Your task to perform on an android device: Open the phone app and click the voicemail tab. Image 0: 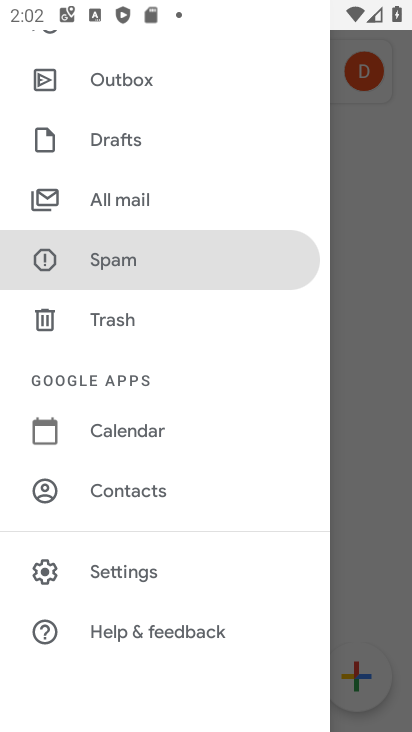
Step 0: drag from (168, 604) to (246, 159)
Your task to perform on an android device: Open the phone app and click the voicemail tab. Image 1: 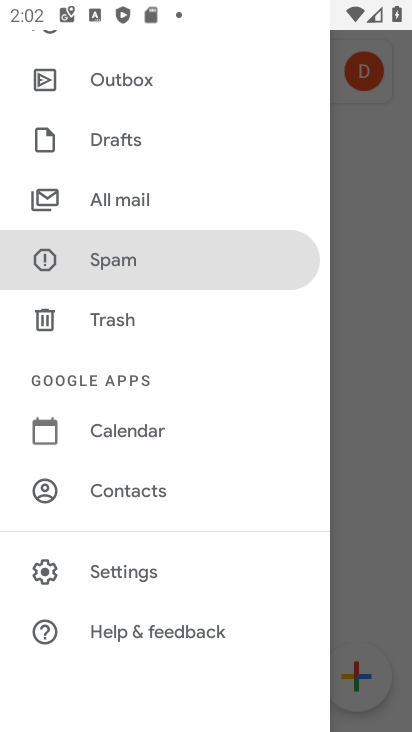
Step 1: drag from (175, 613) to (199, 206)
Your task to perform on an android device: Open the phone app and click the voicemail tab. Image 2: 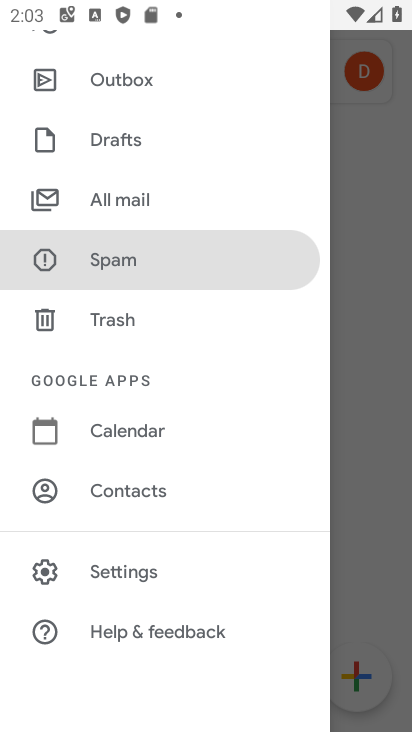
Step 2: press home button
Your task to perform on an android device: Open the phone app and click the voicemail tab. Image 3: 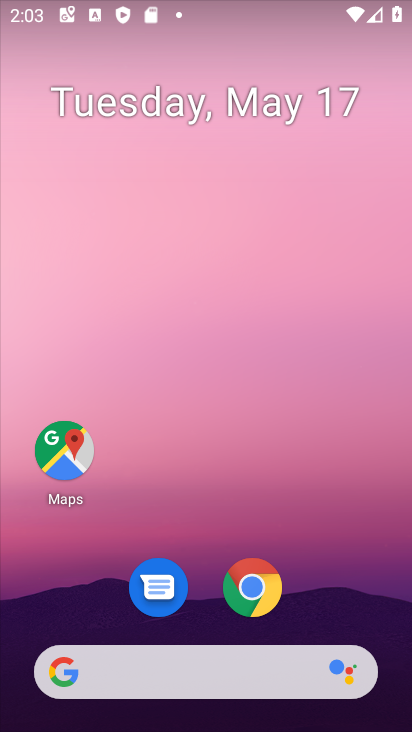
Step 3: drag from (217, 611) to (253, 66)
Your task to perform on an android device: Open the phone app and click the voicemail tab. Image 4: 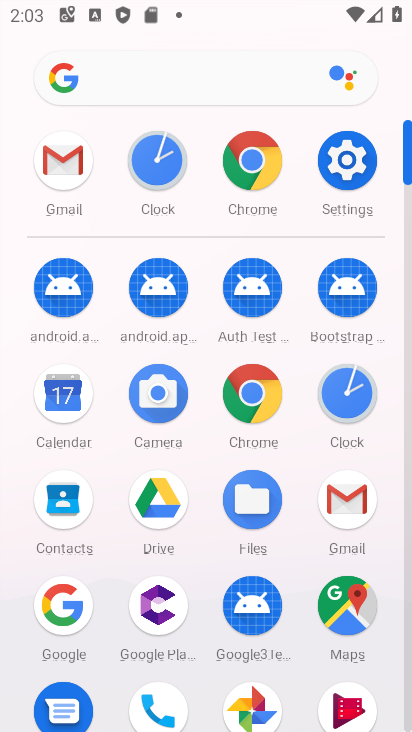
Step 4: click (167, 706)
Your task to perform on an android device: Open the phone app and click the voicemail tab. Image 5: 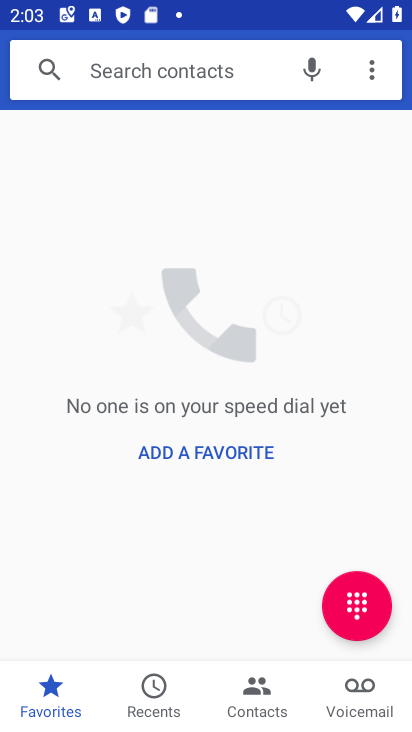
Step 5: click (363, 686)
Your task to perform on an android device: Open the phone app and click the voicemail tab. Image 6: 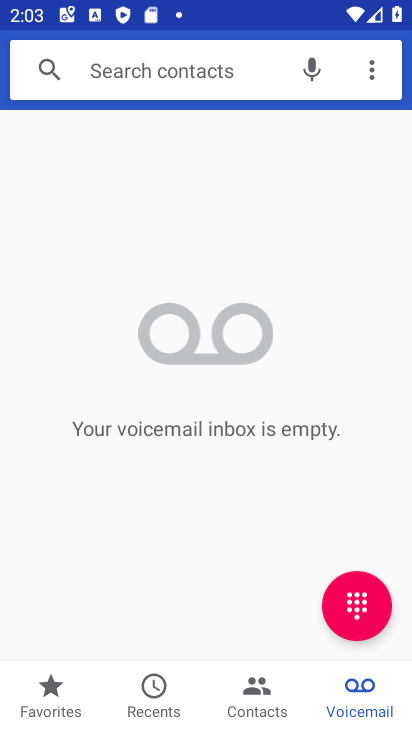
Step 6: click (353, 704)
Your task to perform on an android device: Open the phone app and click the voicemail tab. Image 7: 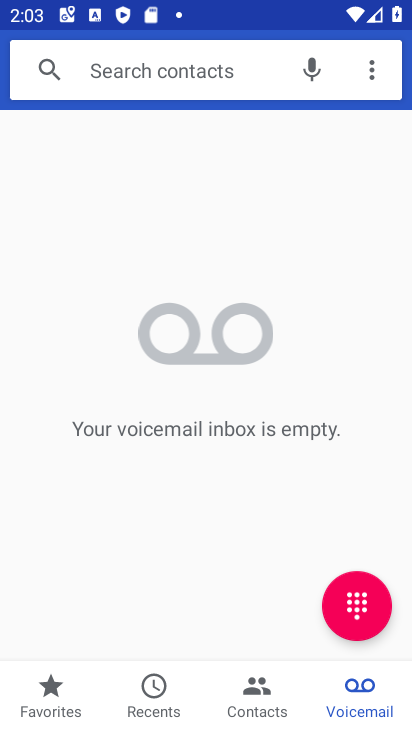
Step 7: task complete